Your task to perform on an android device: check data usage Image 0: 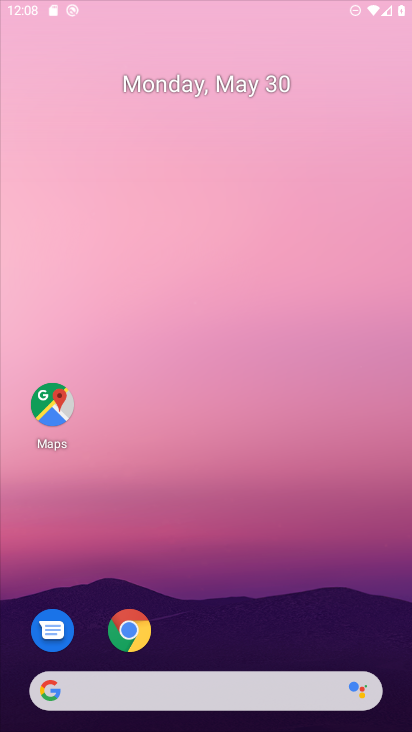
Step 0: drag from (8, 238) to (402, 421)
Your task to perform on an android device: check data usage Image 1: 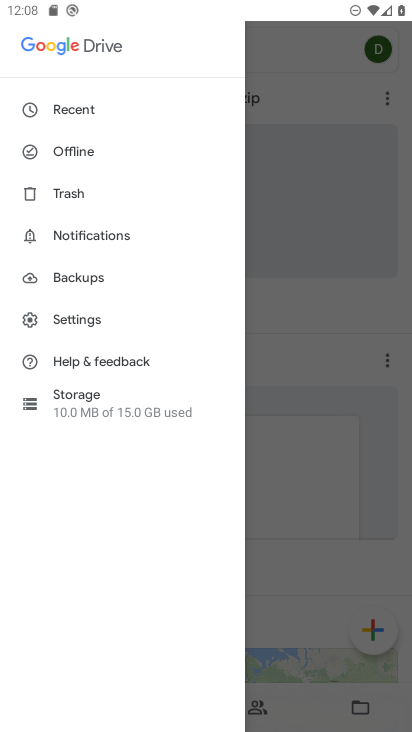
Step 1: press back button
Your task to perform on an android device: check data usage Image 2: 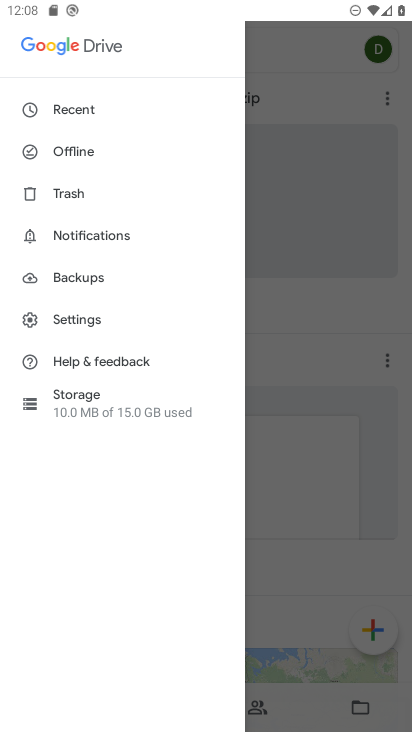
Step 2: press back button
Your task to perform on an android device: check data usage Image 3: 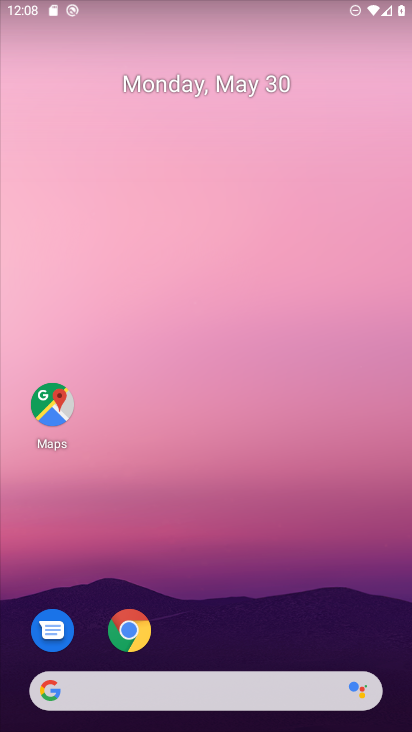
Step 3: press back button
Your task to perform on an android device: check data usage Image 4: 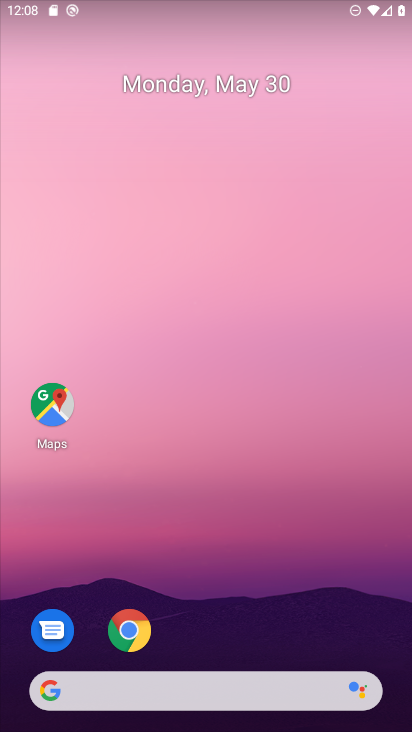
Step 4: drag from (43, 290) to (395, 621)
Your task to perform on an android device: check data usage Image 5: 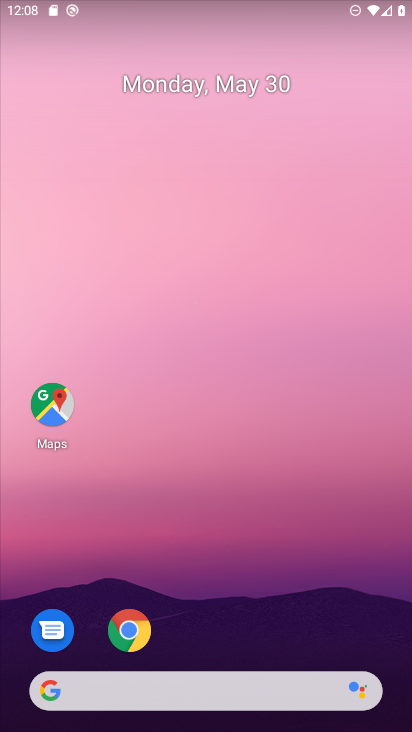
Step 5: drag from (2, 280) to (397, 306)
Your task to perform on an android device: check data usage Image 6: 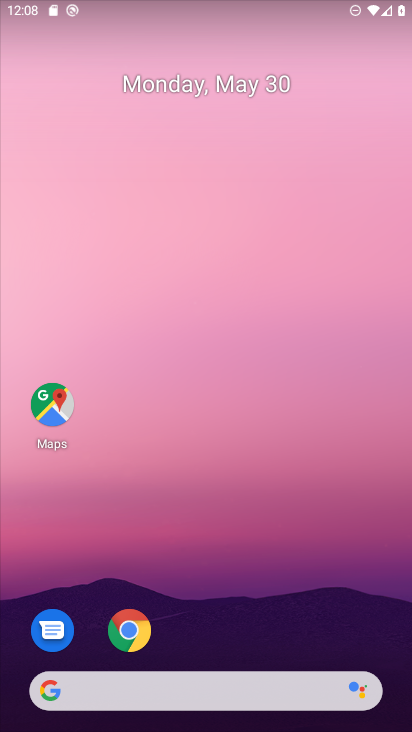
Step 6: drag from (14, 231) to (411, 351)
Your task to perform on an android device: check data usage Image 7: 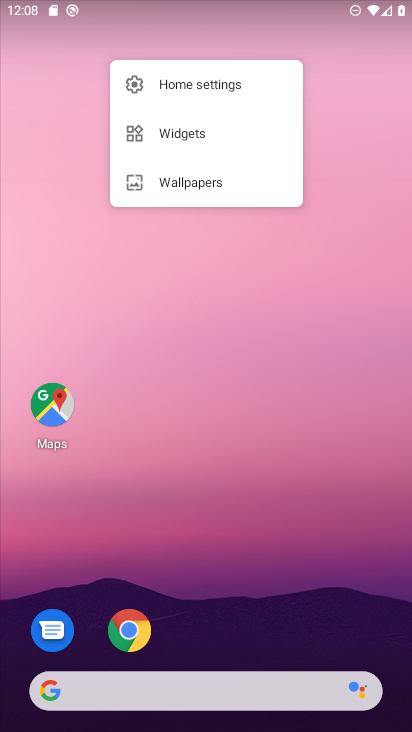
Step 7: drag from (4, 243) to (362, 368)
Your task to perform on an android device: check data usage Image 8: 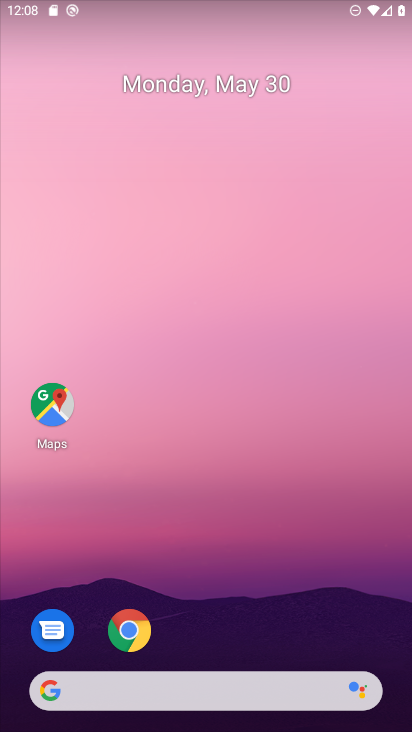
Step 8: drag from (74, 254) to (385, 354)
Your task to perform on an android device: check data usage Image 9: 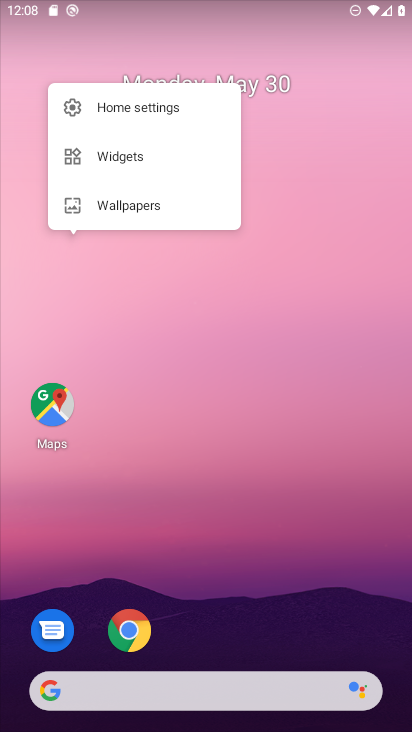
Step 9: click (346, 415)
Your task to perform on an android device: check data usage Image 10: 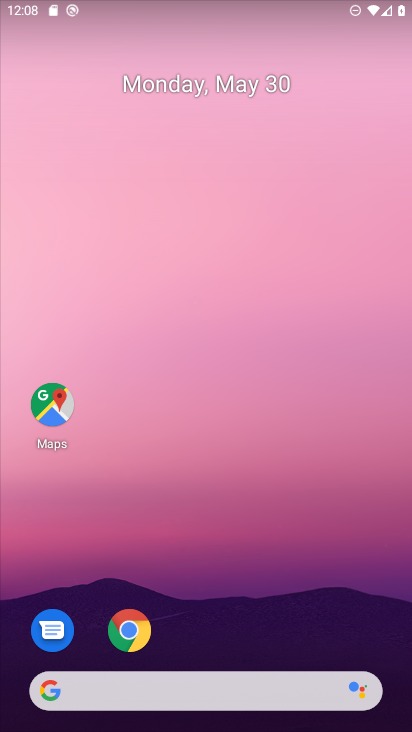
Step 10: press home button
Your task to perform on an android device: check data usage Image 11: 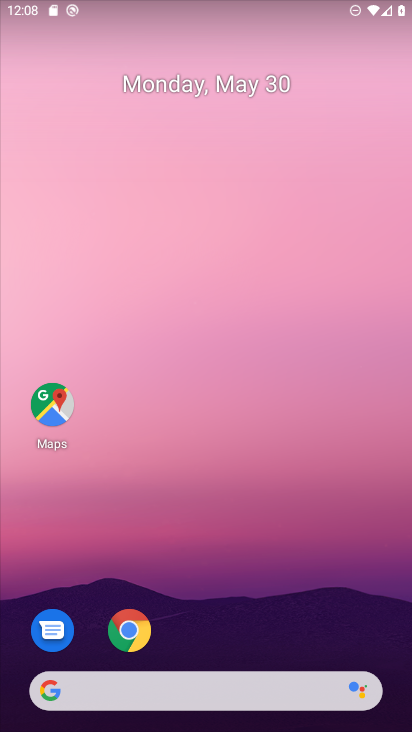
Step 11: drag from (346, 415) to (387, 362)
Your task to perform on an android device: check data usage Image 12: 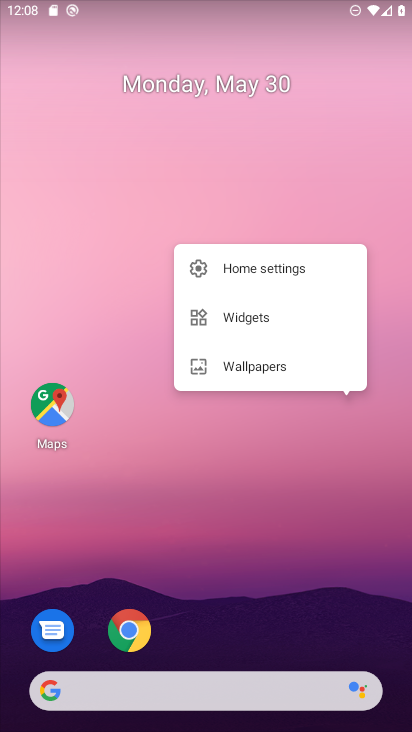
Step 12: click (86, 259)
Your task to perform on an android device: check data usage Image 13: 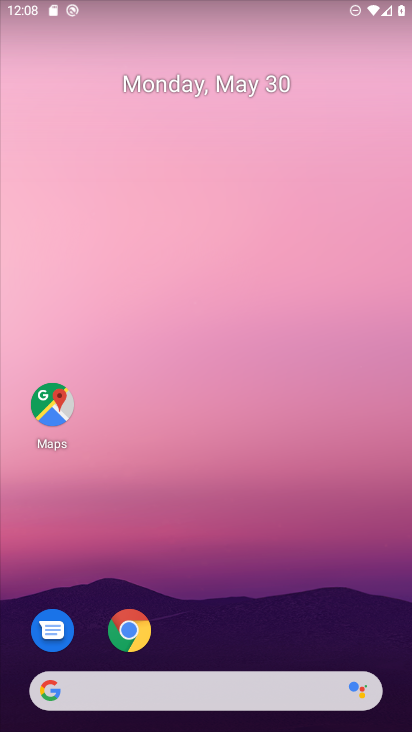
Step 13: click (93, 241)
Your task to perform on an android device: check data usage Image 14: 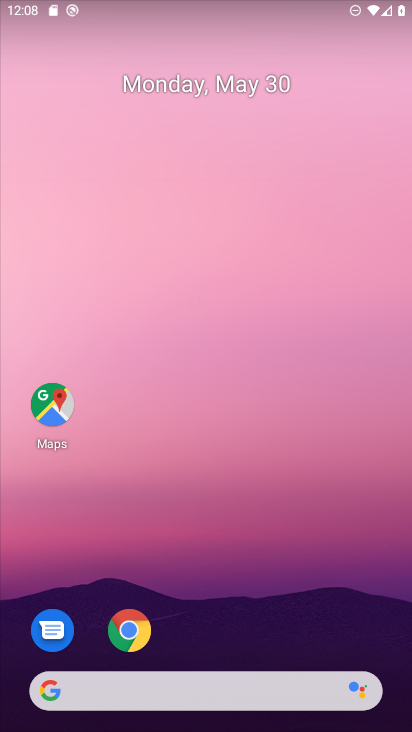
Step 14: drag from (183, 355) to (379, 470)
Your task to perform on an android device: check data usage Image 15: 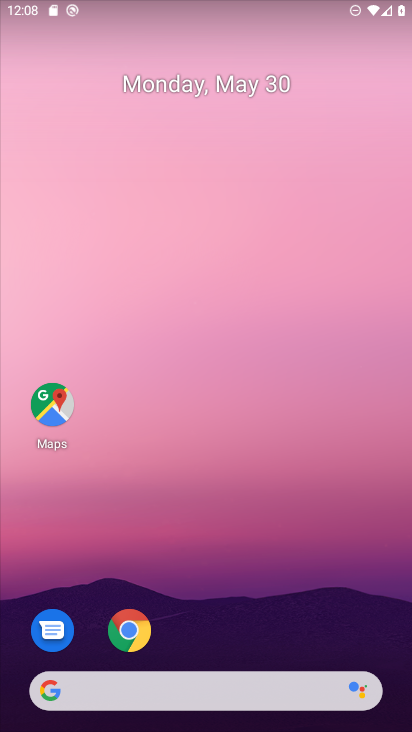
Step 15: drag from (9, 255) to (403, 384)
Your task to perform on an android device: check data usage Image 16: 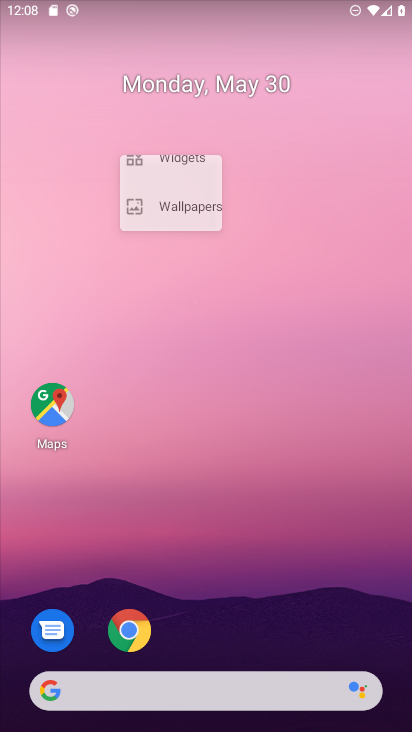
Step 16: drag from (13, 239) to (397, 352)
Your task to perform on an android device: check data usage Image 17: 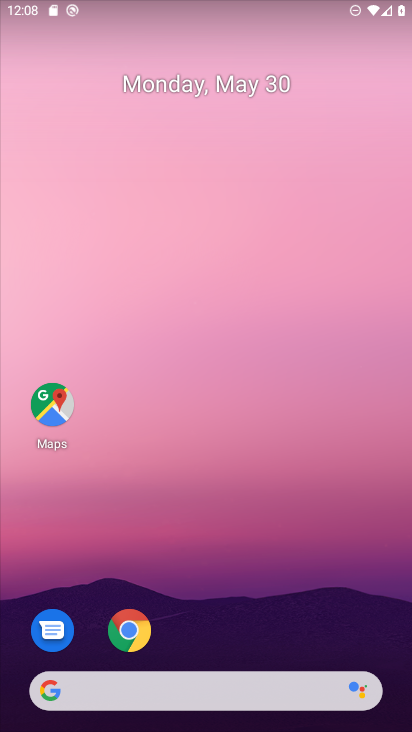
Step 17: drag from (56, 292) to (345, 420)
Your task to perform on an android device: check data usage Image 18: 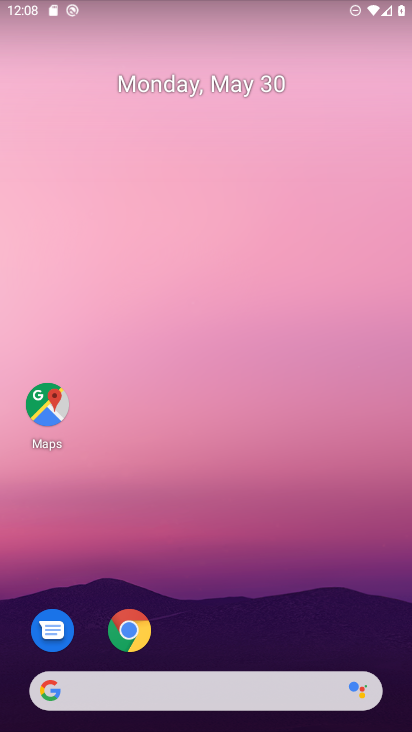
Step 18: drag from (19, 278) to (338, 465)
Your task to perform on an android device: check data usage Image 19: 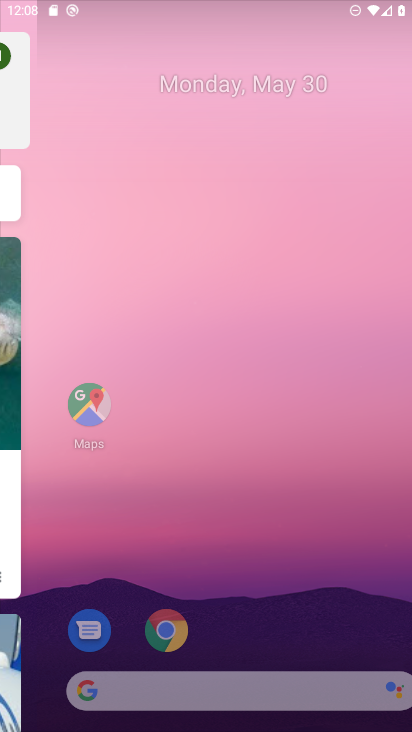
Step 19: drag from (260, 477) to (361, 513)
Your task to perform on an android device: check data usage Image 20: 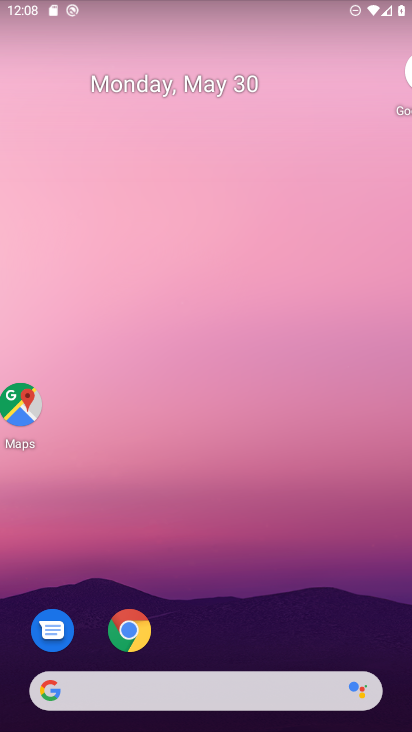
Step 20: click (358, 497)
Your task to perform on an android device: check data usage Image 21: 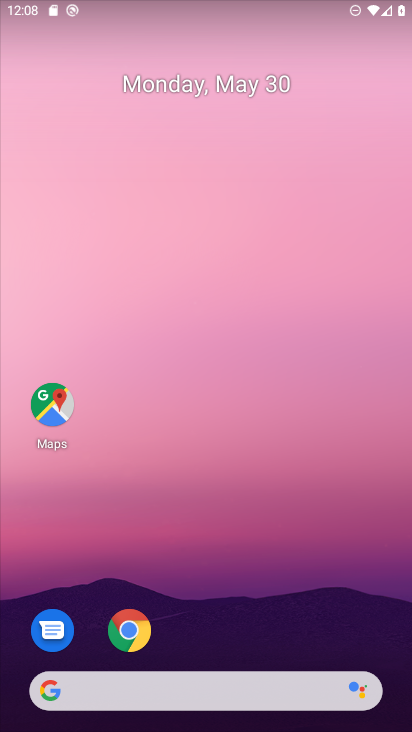
Step 21: drag from (5, 310) to (350, 369)
Your task to perform on an android device: check data usage Image 22: 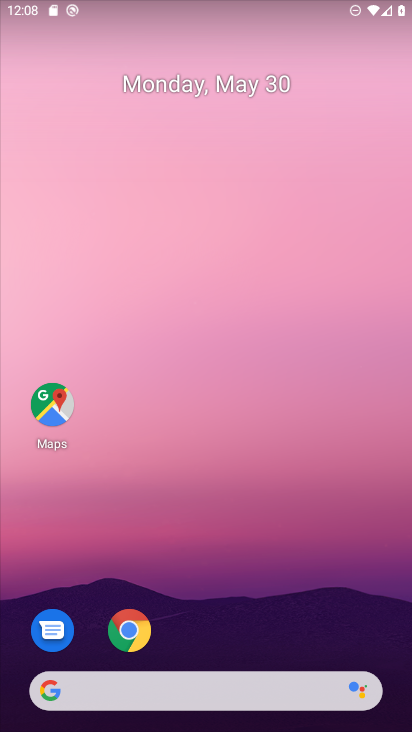
Step 22: drag from (25, 273) to (342, 315)
Your task to perform on an android device: check data usage Image 23: 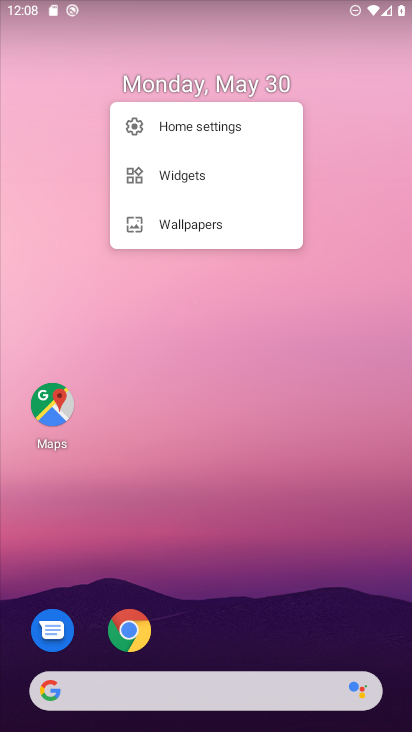
Step 23: drag from (249, 413) to (188, 379)
Your task to perform on an android device: check data usage Image 24: 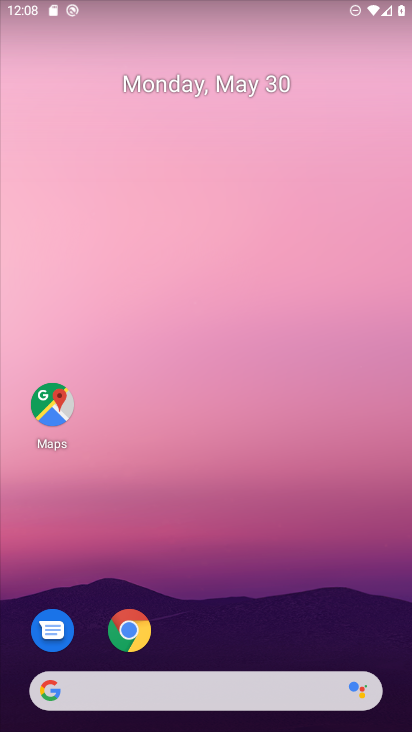
Step 24: drag from (2, 297) to (385, 441)
Your task to perform on an android device: check data usage Image 25: 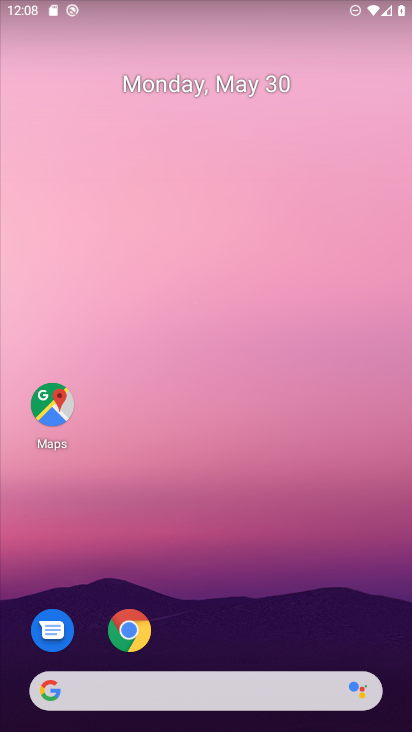
Step 25: drag from (38, 265) to (405, 341)
Your task to perform on an android device: check data usage Image 26: 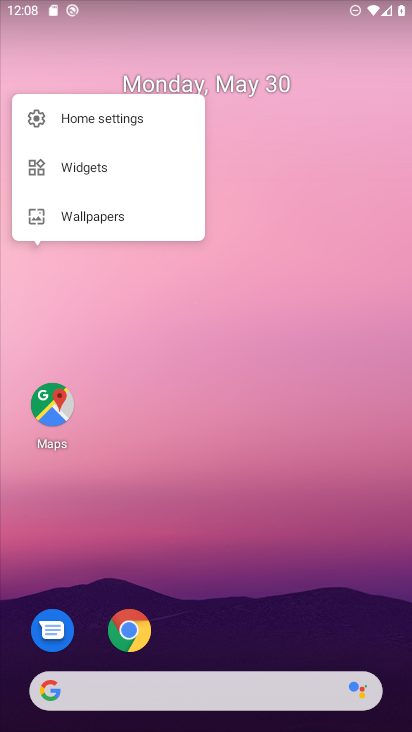
Step 26: drag from (30, 284) to (388, 415)
Your task to perform on an android device: check data usage Image 27: 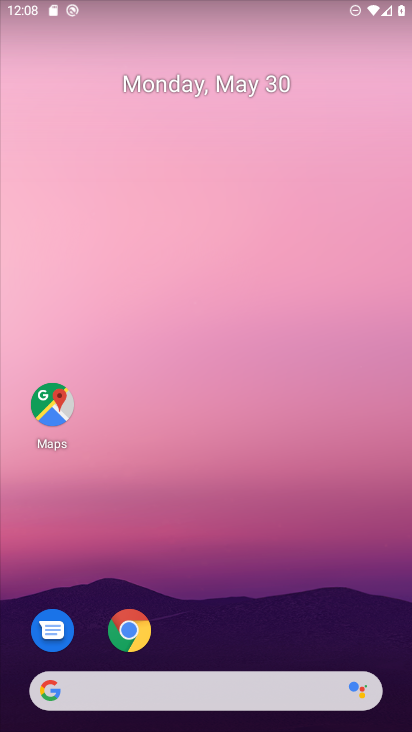
Step 27: drag from (357, 444) to (400, 419)
Your task to perform on an android device: check data usage Image 28: 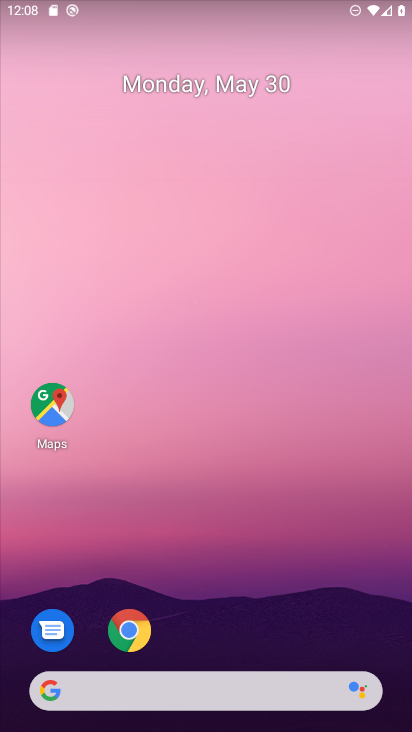
Step 28: drag from (144, 311) to (396, 335)
Your task to perform on an android device: check data usage Image 29: 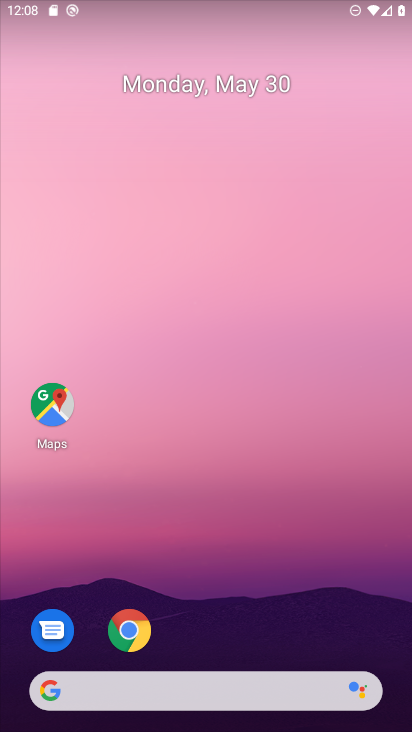
Step 29: drag from (38, 247) to (390, 387)
Your task to perform on an android device: check data usage Image 30: 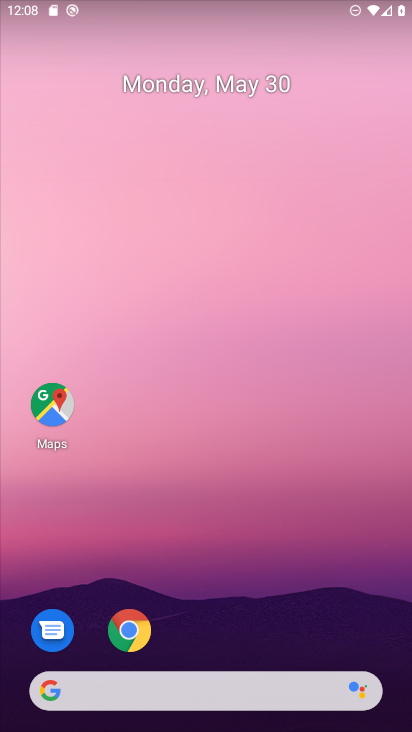
Step 30: drag from (148, 352) to (398, 494)
Your task to perform on an android device: check data usage Image 31: 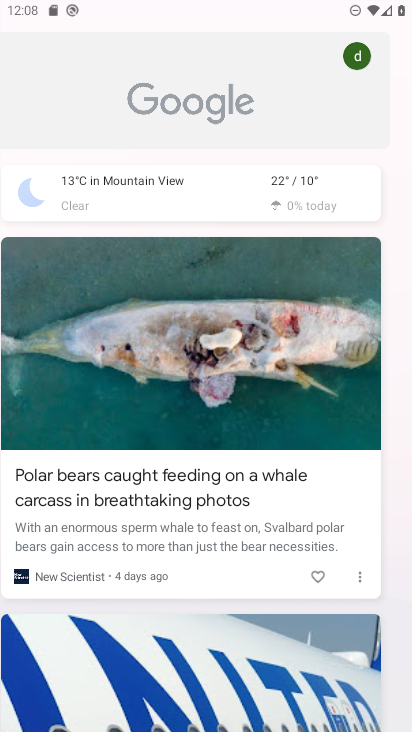
Step 31: drag from (361, 409) to (398, 232)
Your task to perform on an android device: check data usage Image 32: 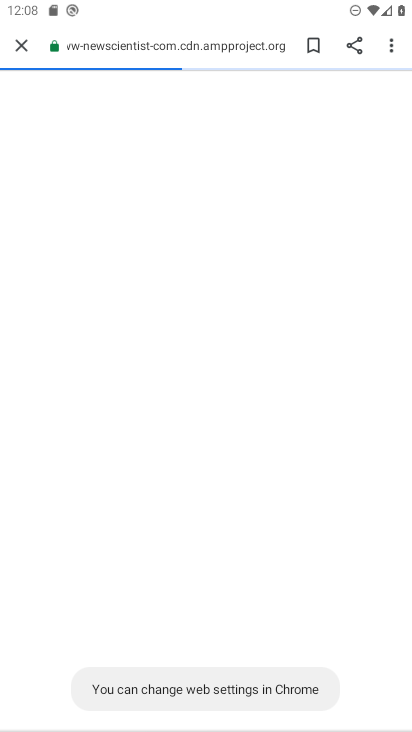
Step 32: press back button
Your task to perform on an android device: check data usage Image 33: 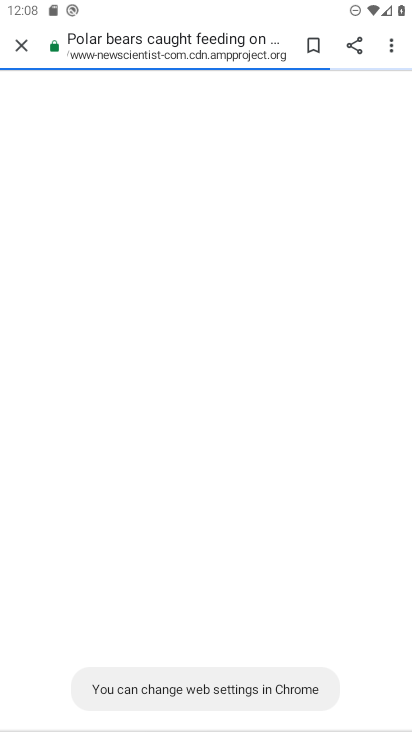
Step 33: press back button
Your task to perform on an android device: check data usage Image 34: 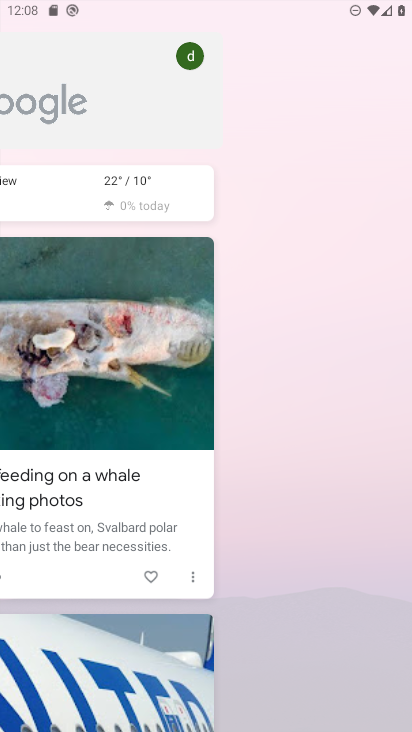
Step 34: press back button
Your task to perform on an android device: check data usage Image 35: 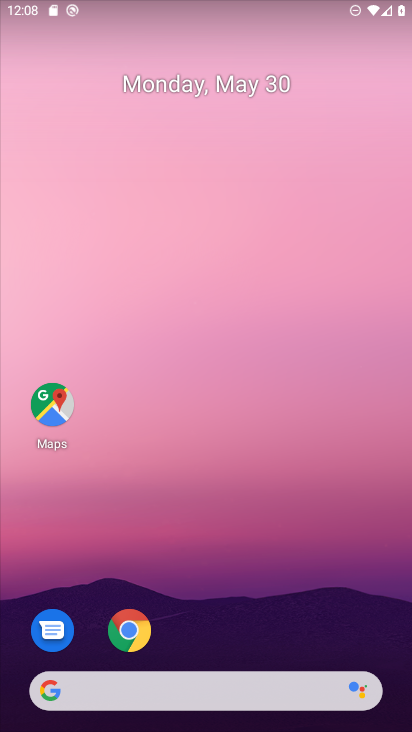
Step 35: press back button
Your task to perform on an android device: check data usage Image 36: 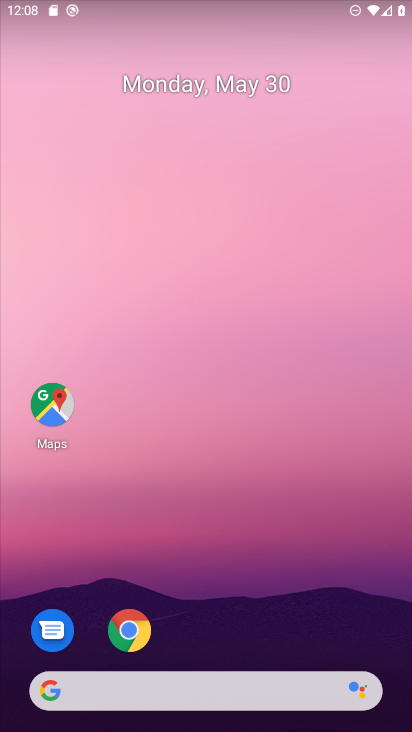
Step 36: press back button
Your task to perform on an android device: check data usage Image 37: 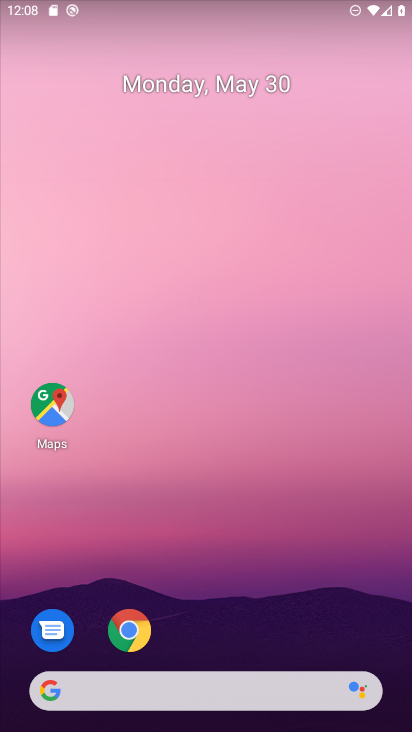
Step 37: press home button
Your task to perform on an android device: check data usage Image 38: 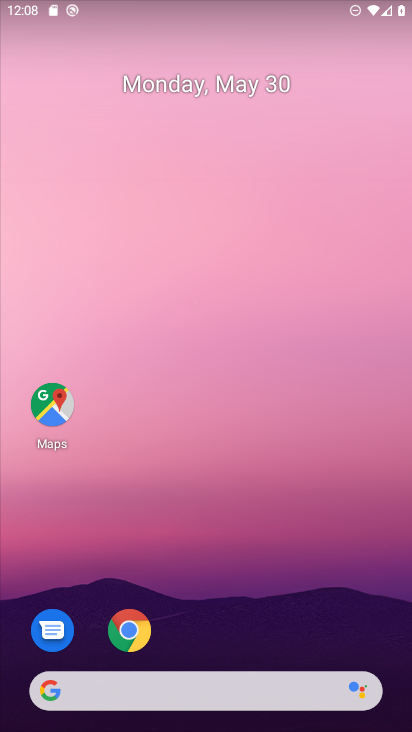
Step 38: drag from (288, 674) to (230, 98)
Your task to perform on an android device: check data usage Image 39: 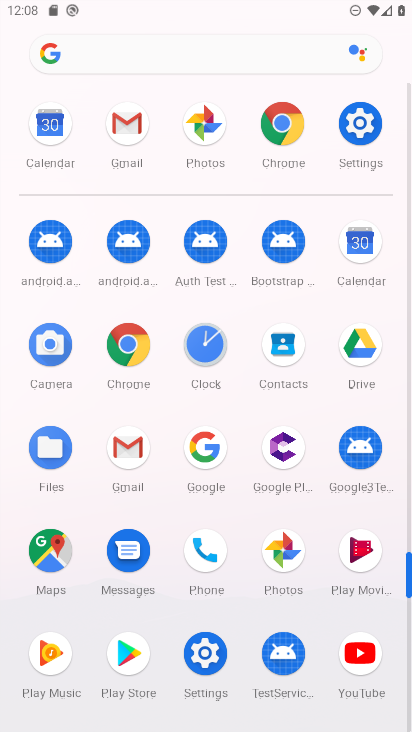
Step 39: click (165, 11)
Your task to perform on an android device: check data usage Image 40: 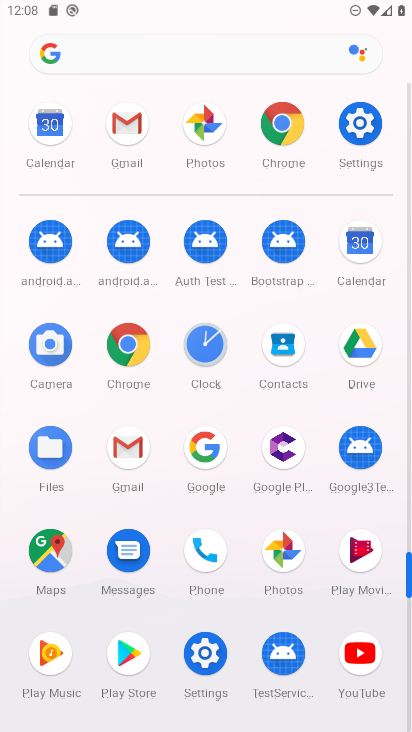
Step 40: click (358, 122)
Your task to perform on an android device: check data usage Image 41: 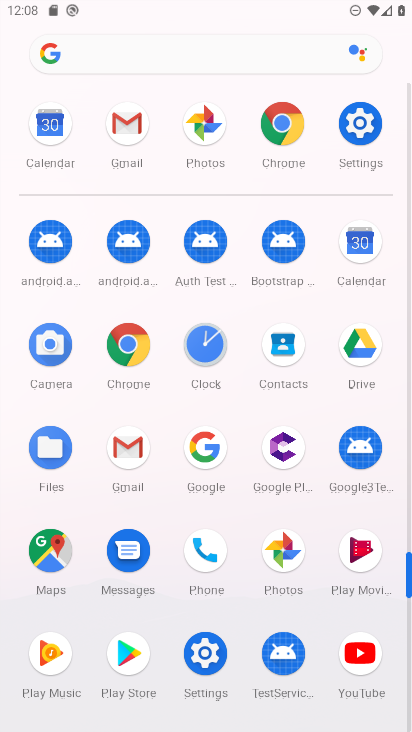
Step 41: click (366, 114)
Your task to perform on an android device: check data usage Image 42: 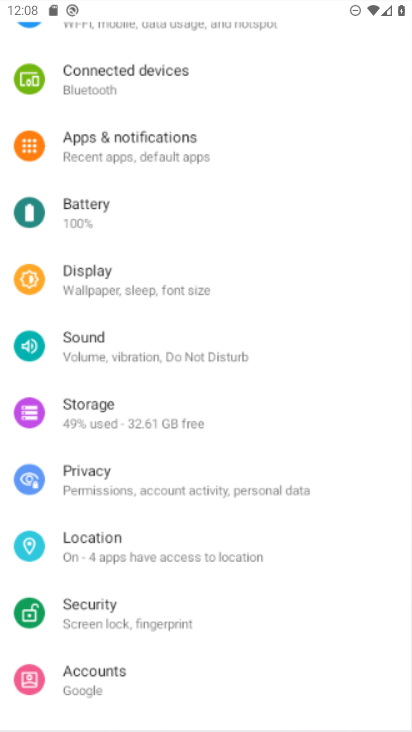
Step 42: click (366, 111)
Your task to perform on an android device: check data usage Image 43: 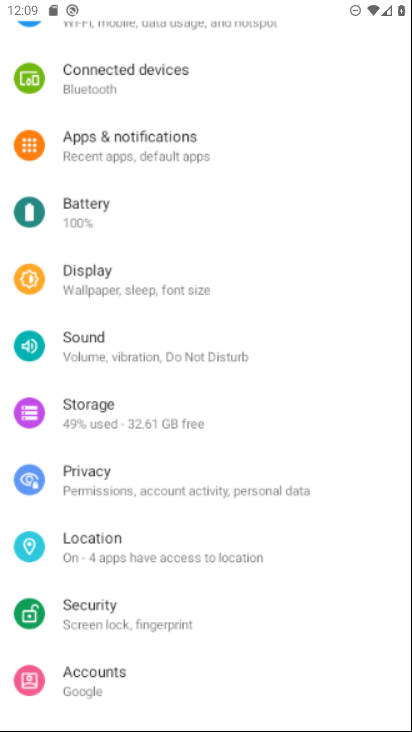
Step 43: click (366, 111)
Your task to perform on an android device: check data usage Image 44: 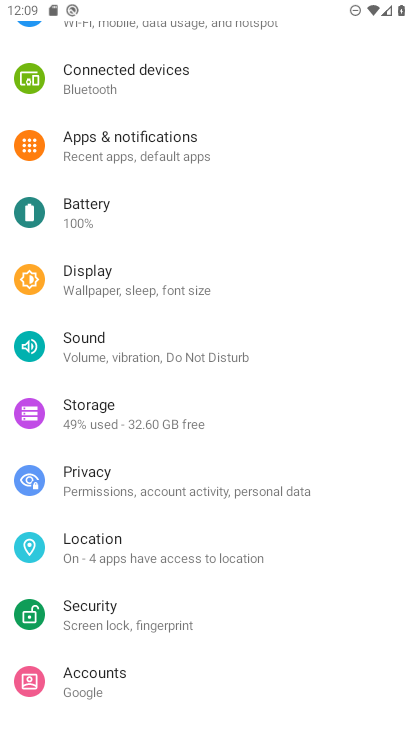
Step 44: drag from (86, 79) to (103, 543)
Your task to perform on an android device: check data usage Image 45: 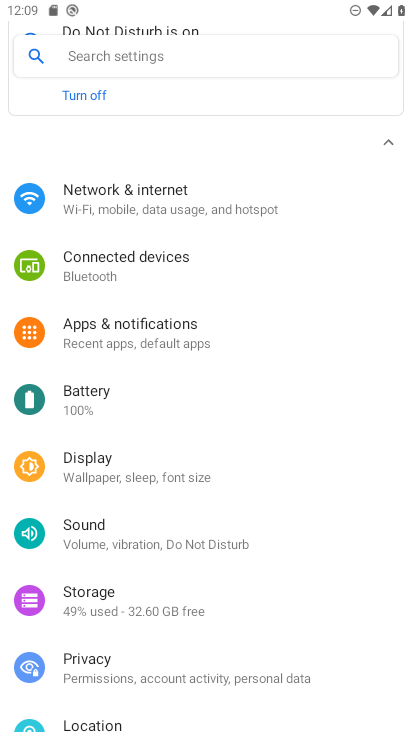
Step 45: click (114, 199)
Your task to perform on an android device: check data usage Image 46: 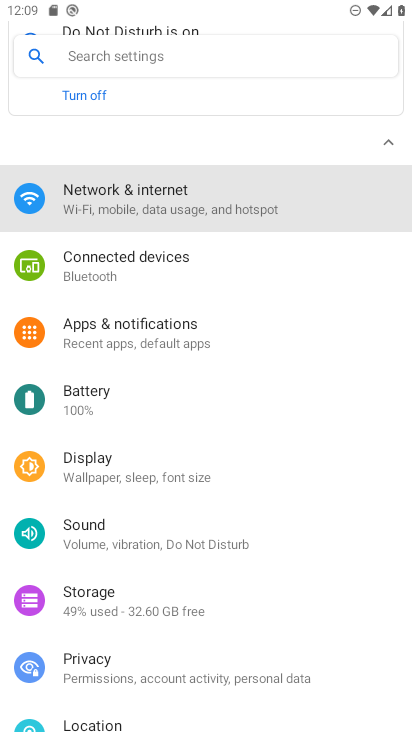
Step 46: click (113, 199)
Your task to perform on an android device: check data usage Image 47: 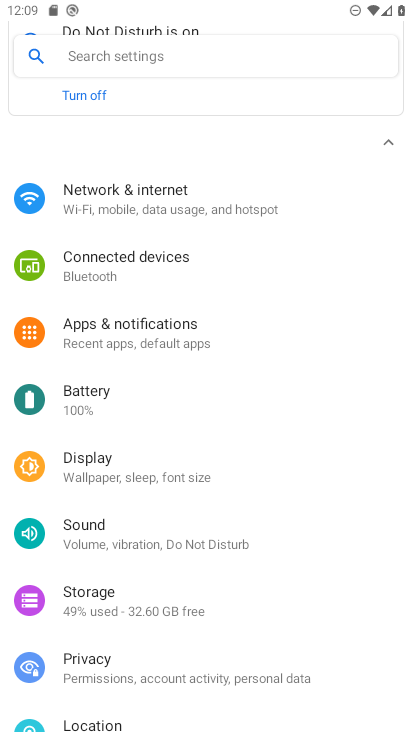
Step 47: click (113, 199)
Your task to perform on an android device: check data usage Image 48: 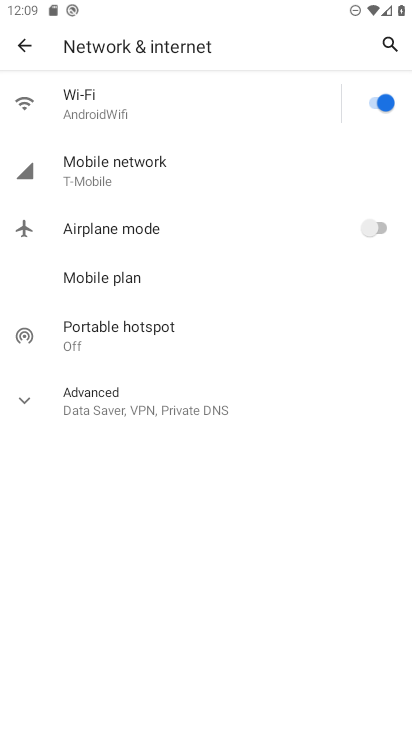
Step 48: task complete